Your task to perform on an android device: Go to location settings Image 0: 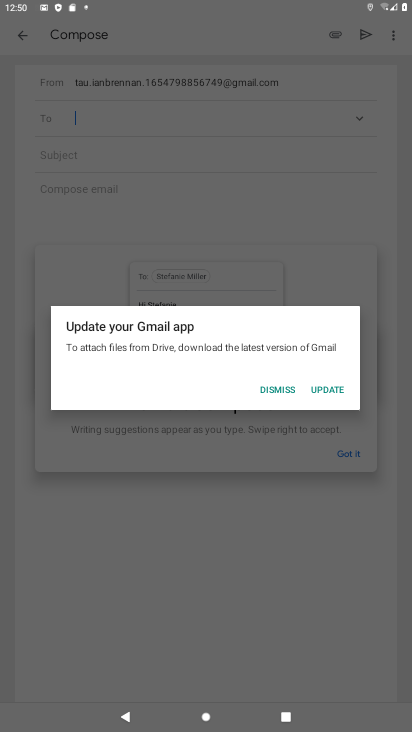
Step 0: press home button
Your task to perform on an android device: Go to location settings Image 1: 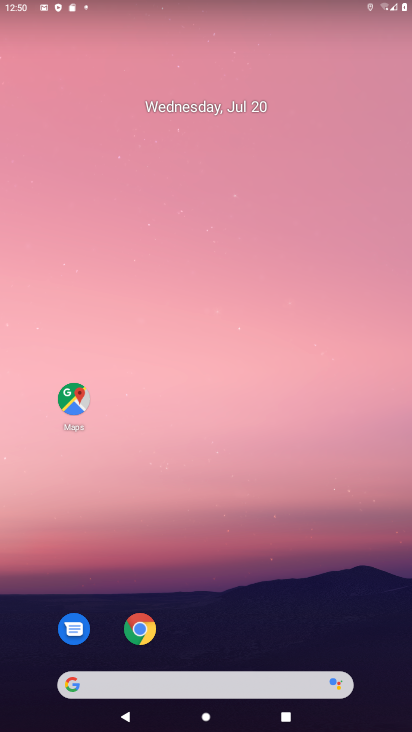
Step 1: drag from (191, 681) to (222, 176)
Your task to perform on an android device: Go to location settings Image 2: 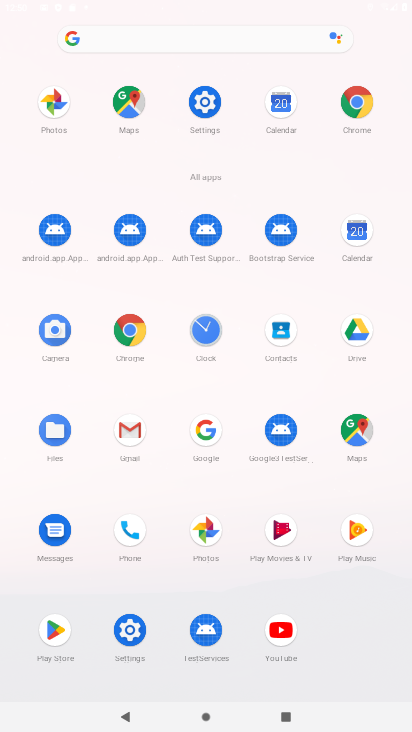
Step 2: click (204, 101)
Your task to perform on an android device: Go to location settings Image 3: 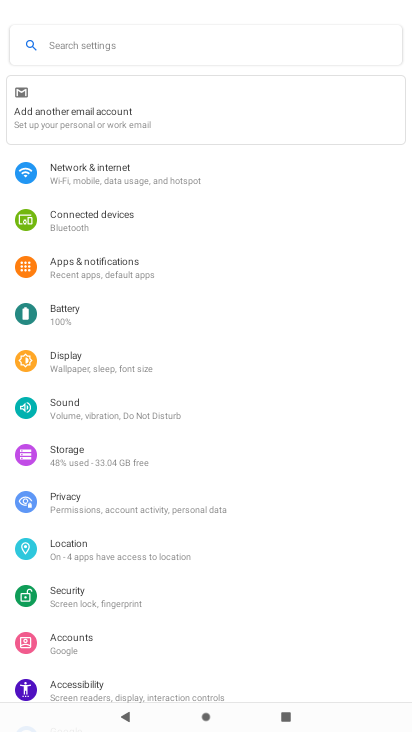
Step 3: click (75, 548)
Your task to perform on an android device: Go to location settings Image 4: 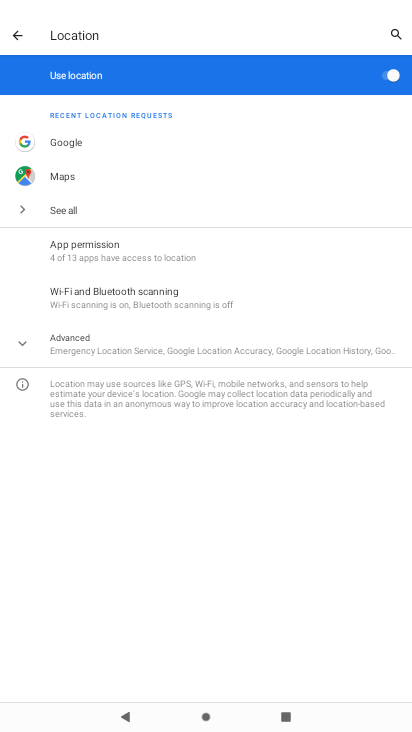
Step 4: task complete